Your task to perform on an android device: Go to Yahoo.com Image 0: 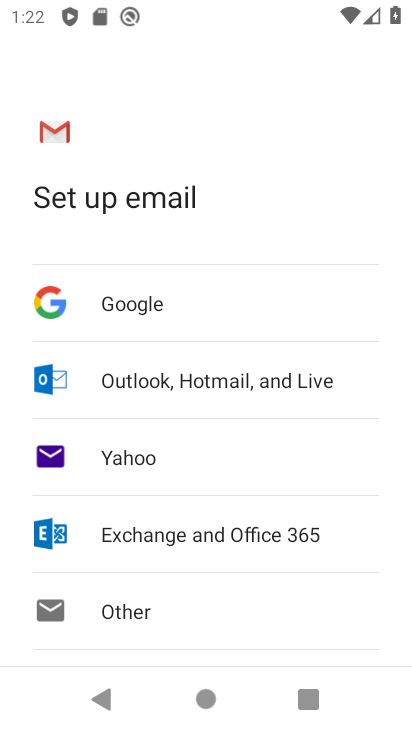
Step 0: press back button
Your task to perform on an android device: Go to Yahoo.com Image 1: 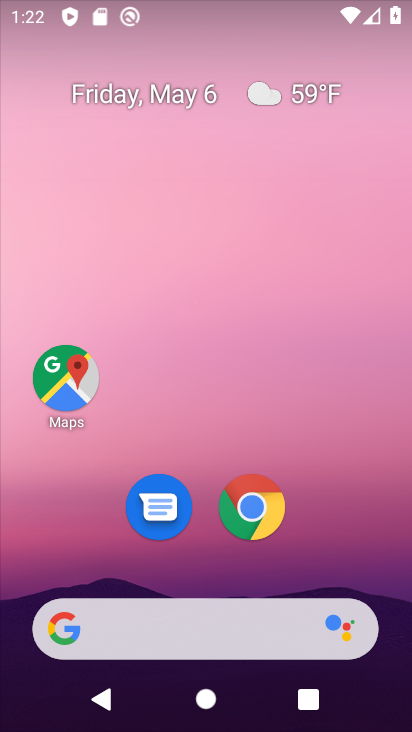
Step 1: drag from (93, 610) to (216, 148)
Your task to perform on an android device: Go to Yahoo.com Image 2: 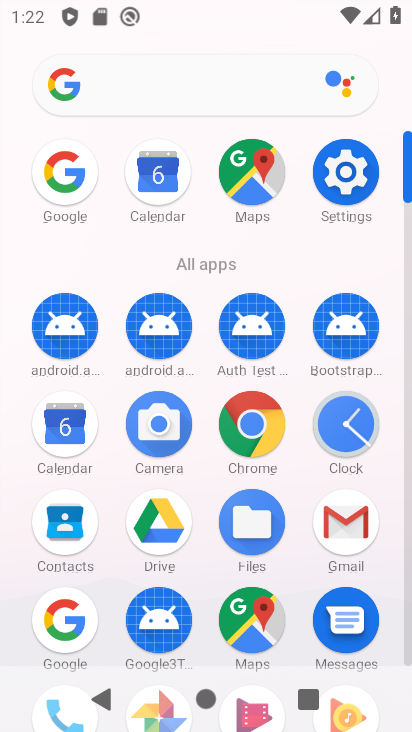
Step 2: click (239, 441)
Your task to perform on an android device: Go to Yahoo.com Image 3: 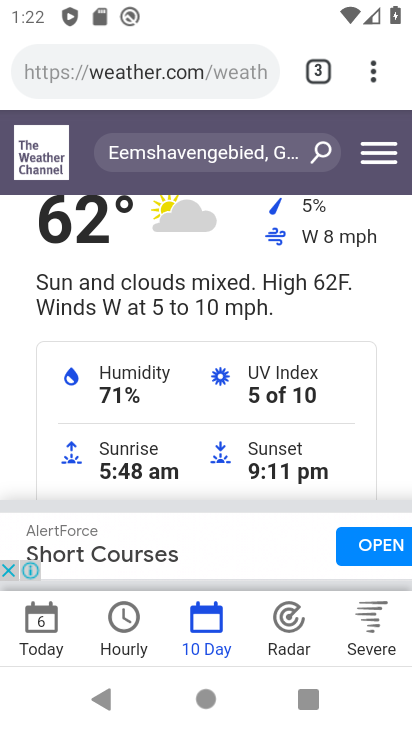
Step 3: press back button
Your task to perform on an android device: Go to Yahoo.com Image 4: 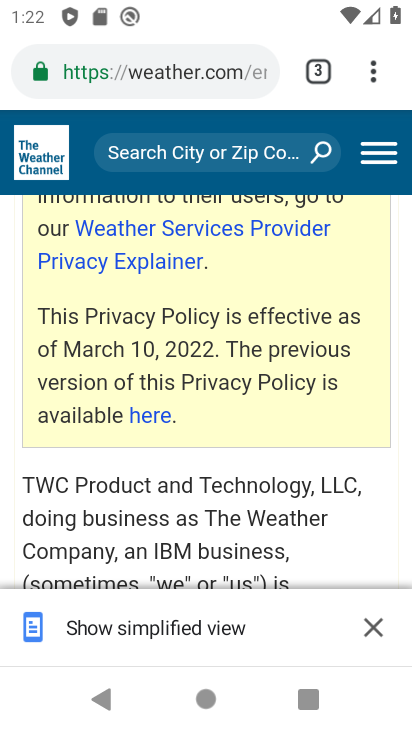
Step 4: press back button
Your task to perform on an android device: Go to Yahoo.com Image 5: 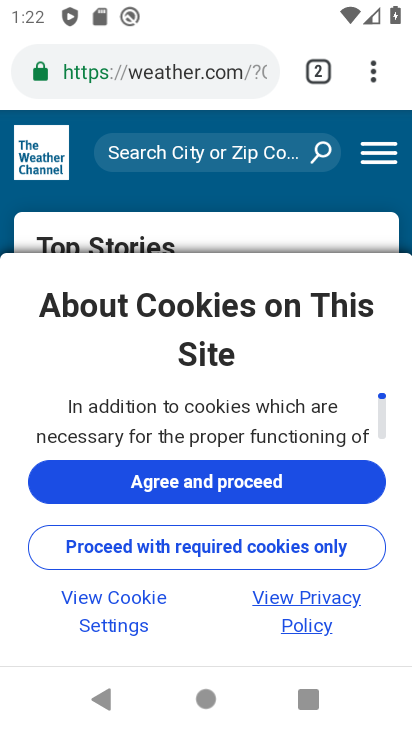
Step 5: press back button
Your task to perform on an android device: Go to Yahoo.com Image 6: 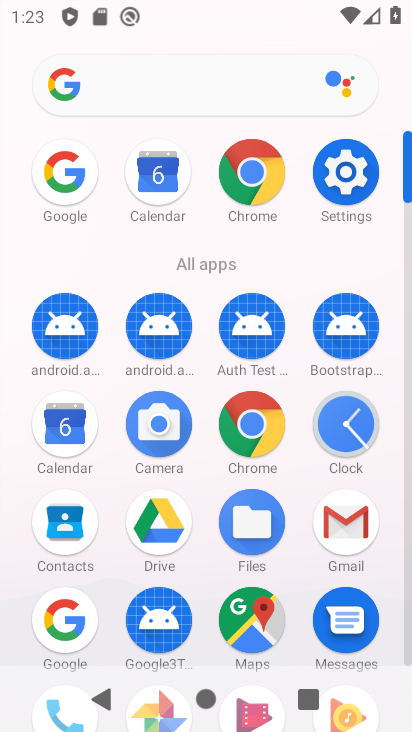
Step 6: click (258, 433)
Your task to perform on an android device: Go to Yahoo.com Image 7: 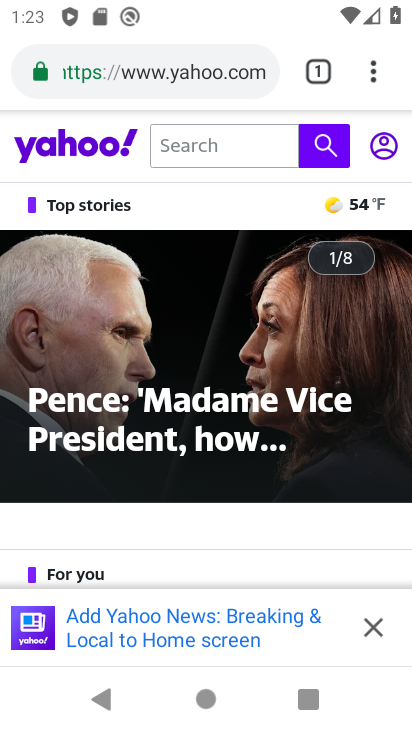
Step 7: press back button
Your task to perform on an android device: Go to Yahoo.com Image 8: 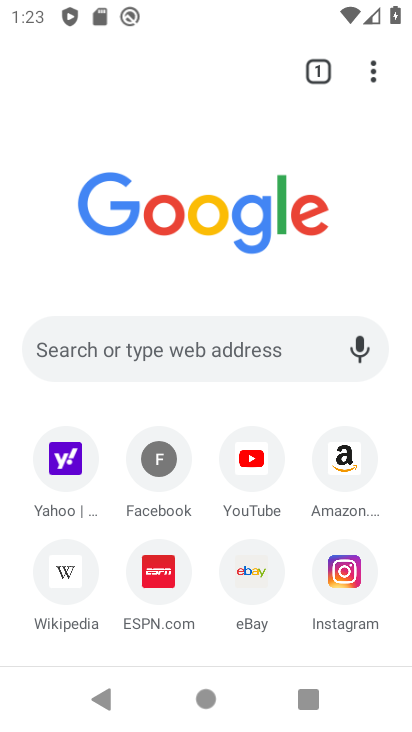
Step 8: click (65, 473)
Your task to perform on an android device: Go to Yahoo.com Image 9: 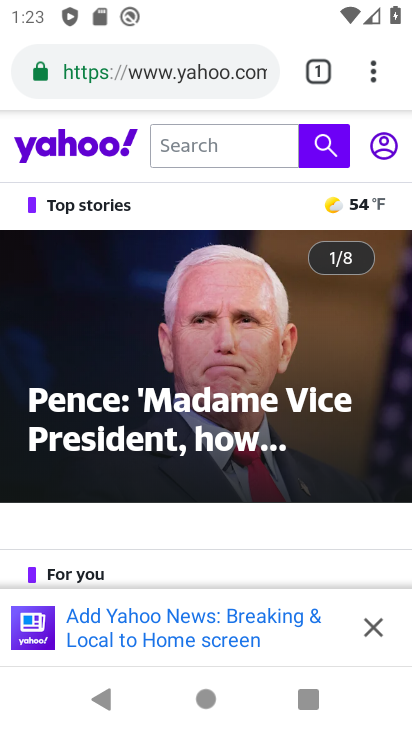
Step 9: task complete